Your task to perform on an android device: turn off notifications in google photos Image 0: 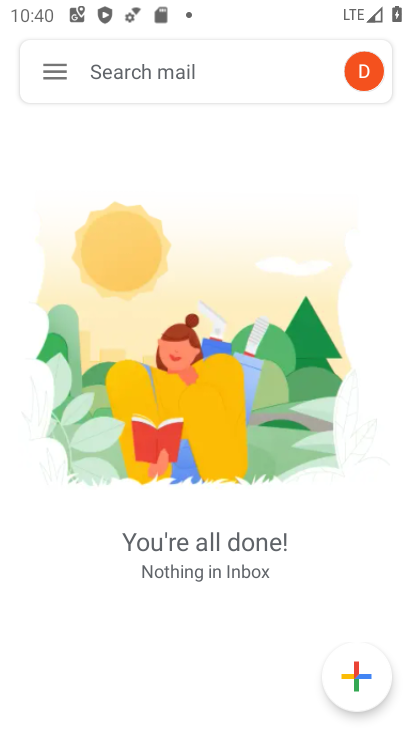
Step 0: press home button
Your task to perform on an android device: turn off notifications in google photos Image 1: 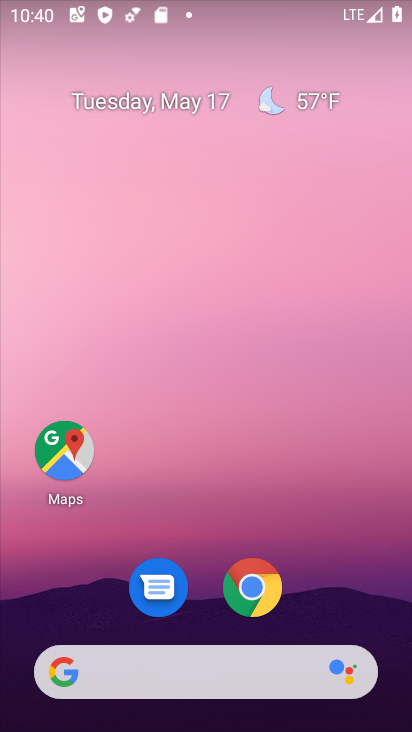
Step 1: drag from (355, 621) to (207, 12)
Your task to perform on an android device: turn off notifications in google photos Image 2: 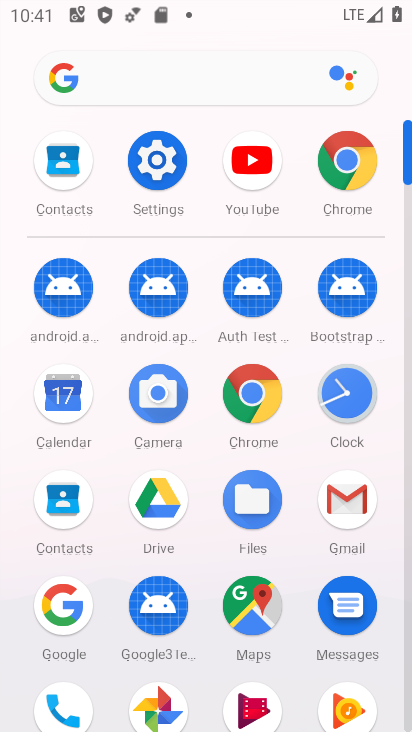
Step 2: click (157, 706)
Your task to perform on an android device: turn off notifications in google photos Image 3: 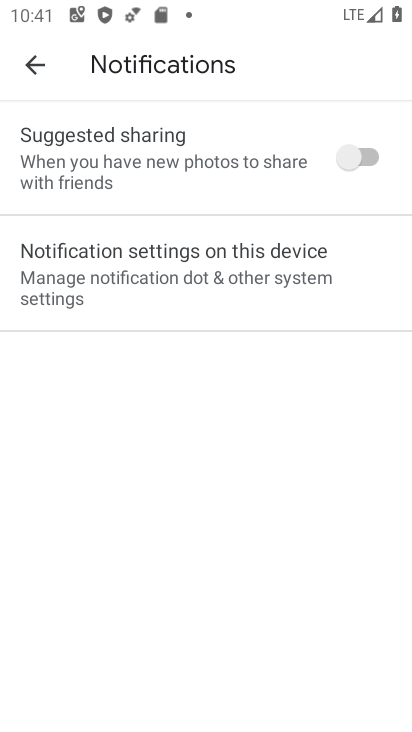
Step 3: press back button
Your task to perform on an android device: turn off notifications in google photos Image 4: 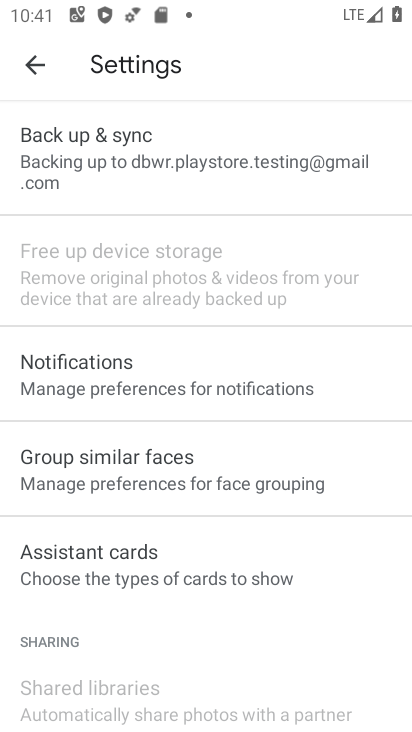
Step 4: click (225, 382)
Your task to perform on an android device: turn off notifications in google photos Image 5: 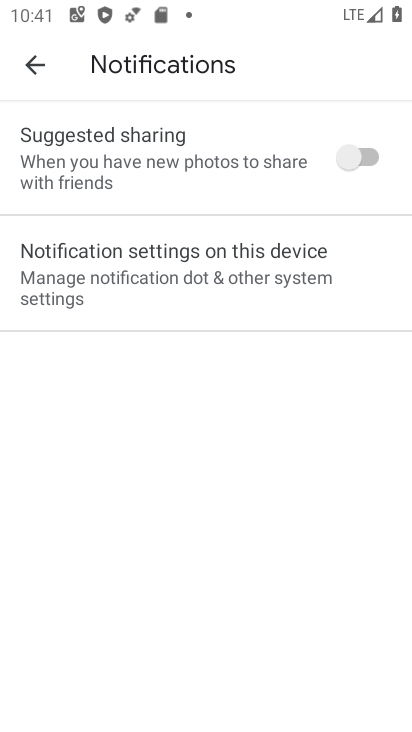
Step 5: task complete